Your task to perform on an android device: Do I have any events today? Image 0: 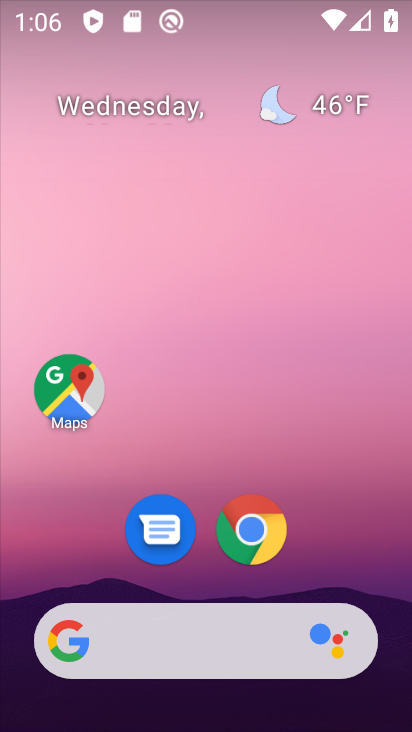
Step 0: drag from (201, 579) to (256, 171)
Your task to perform on an android device: Do I have any events today? Image 1: 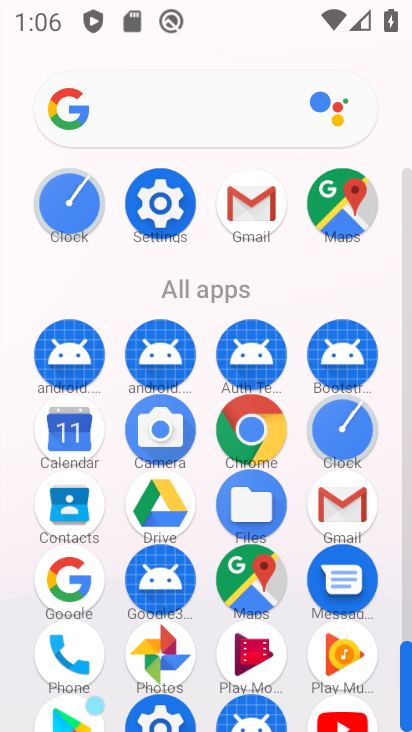
Step 1: click (76, 454)
Your task to perform on an android device: Do I have any events today? Image 2: 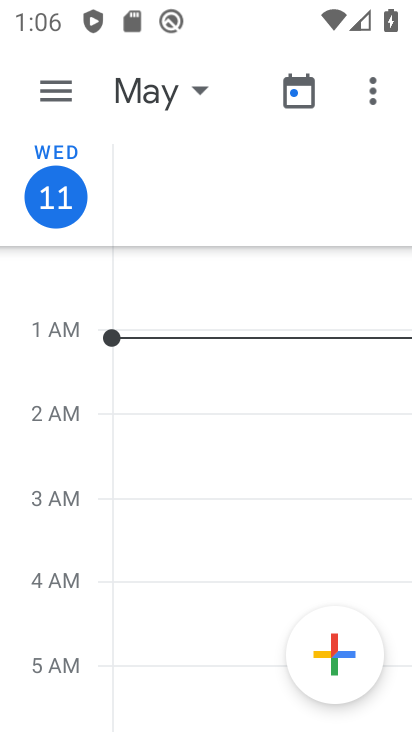
Step 2: drag from (147, 618) to (195, 180)
Your task to perform on an android device: Do I have any events today? Image 3: 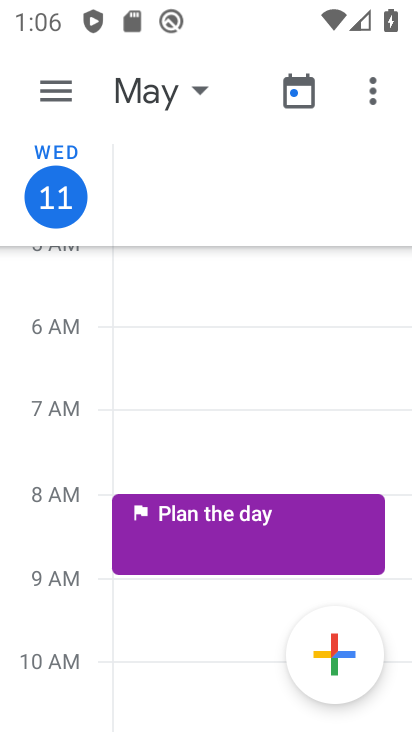
Step 3: click (161, 514)
Your task to perform on an android device: Do I have any events today? Image 4: 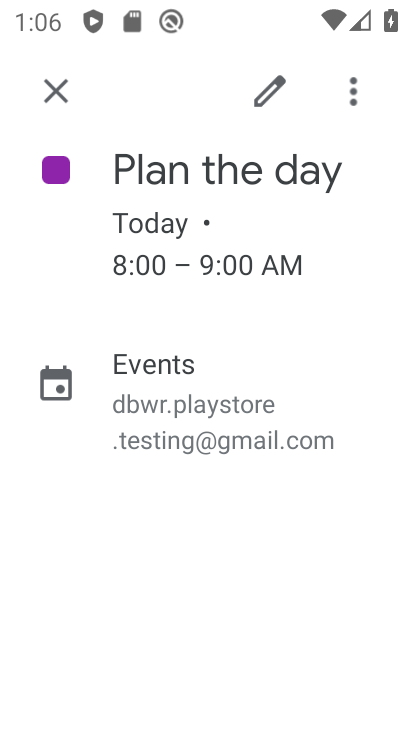
Step 4: task complete